Your task to perform on an android device: Do I have any events tomorrow? Image 0: 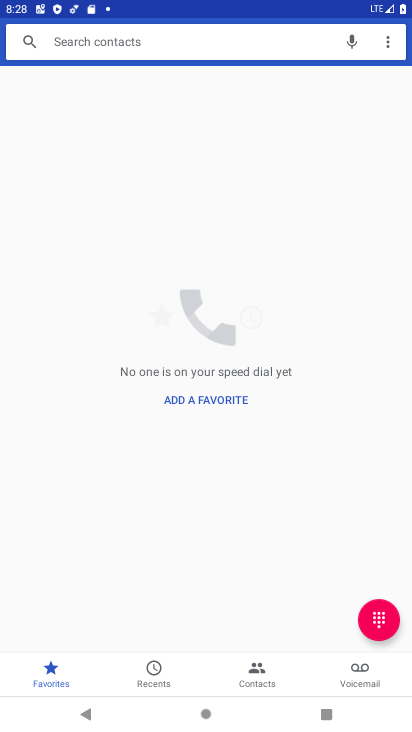
Step 0: drag from (207, 673) to (160, 189)
Your task to perform on an android device: Do I have any events tomorrow? Image 1: 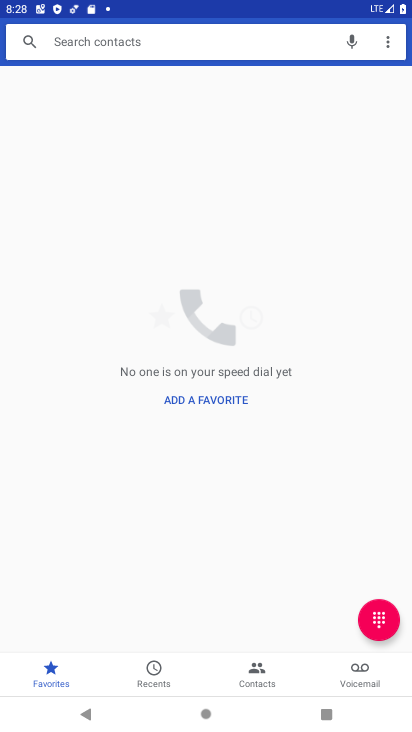
Step 1: press home button
Your task to perform on an android device: Do I have any events tomorrow? Image 2: 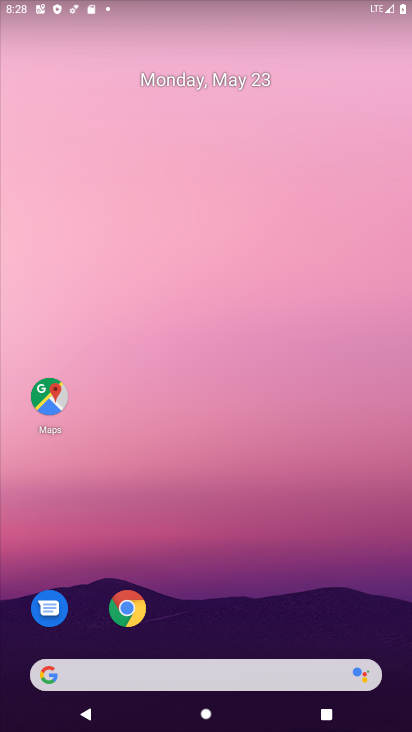
Step 2: drag from (184, 679) to (148, 168)
Your task to perform on an android device: Do I have any events tomorrow? Image 3: 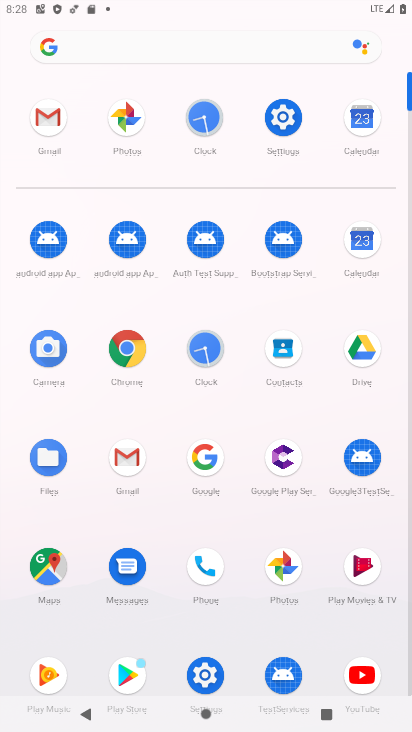
Step 3: click (358, 245)
Your task to perform on an android device: Do I have any events tomorrow? Image 4: 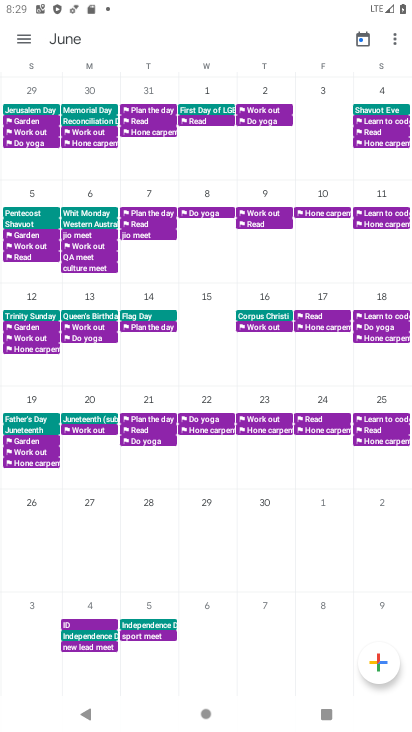
Step 4: click (21, 35)
Your task to perform on an android device: Do I have any events tomorrow? Image 5: 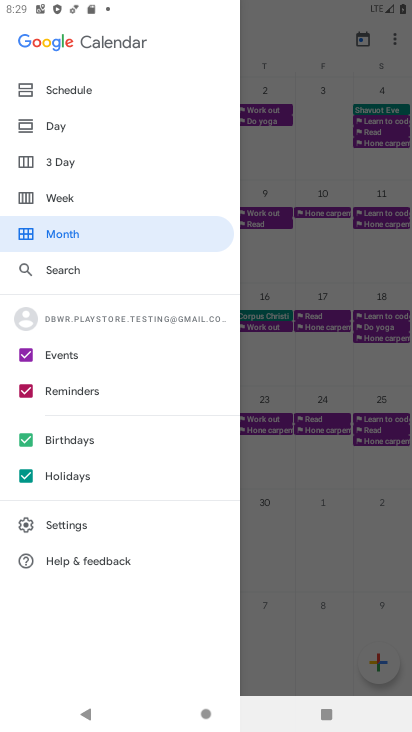
Step 5: click (51, 89)
Your task to perform on an android device: Do I have any events tomorrow? Image 6: 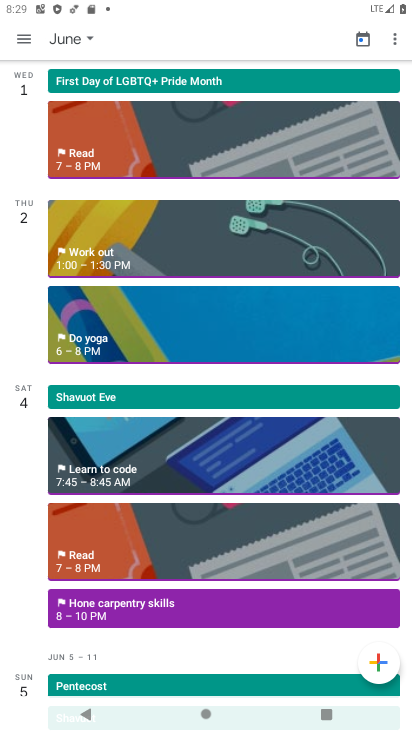
Step 6: click (81, 49)
Your task to perform on an android device: Do I have any events tomorrow? Image 7: 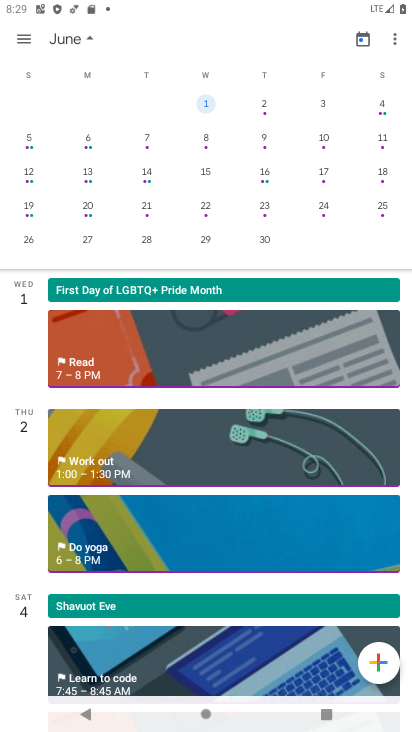
Step 7: drag from (70, 195) to (374, 128)
Your task to perform on an android device: Do I have any events tomorrow? Image 8: 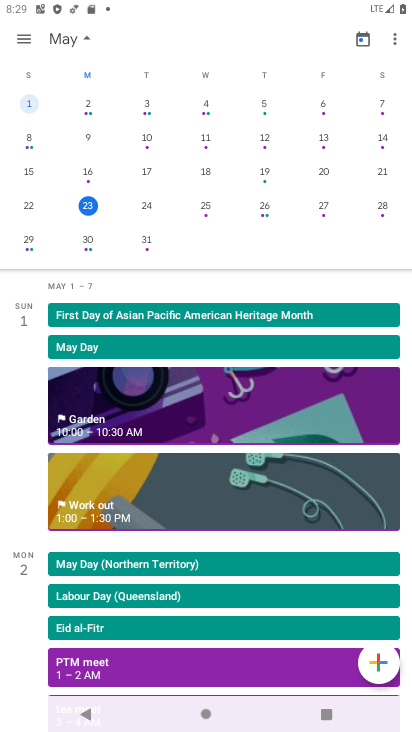
Step 8: click (141, 203)
Your task to perform on an android device: Do I have any events tomorrow? Image 9: 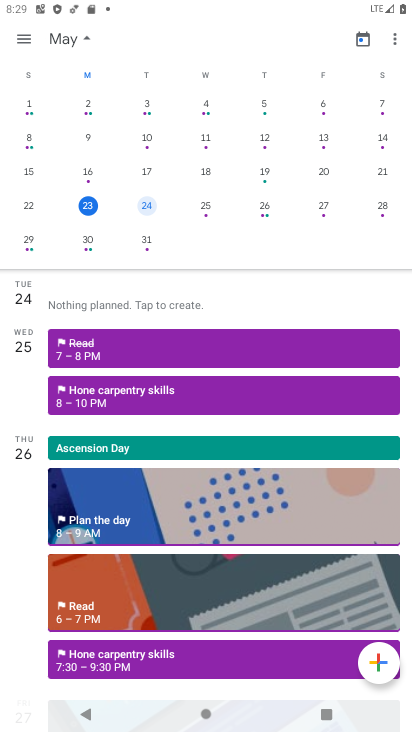
Step 9: click (86, 41)
Your task to perform on an android device: Do I have any events tomorrow? Image 10: 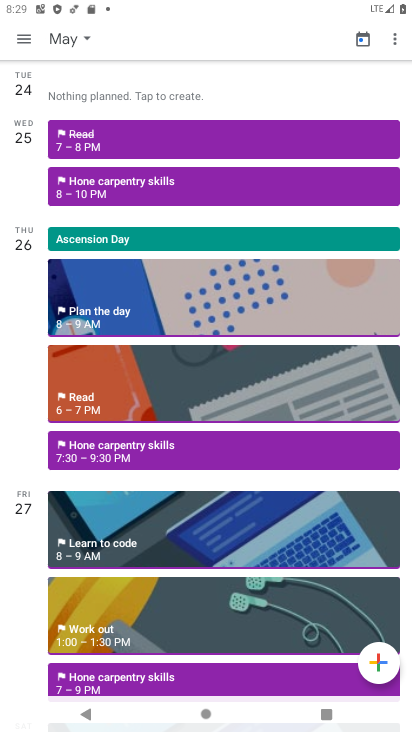
Step 10: task complete